Your task to perform on an android device: Search for logitech g910 on bestbuy, select the first entry, add it to the cart, then select checkout. Image 0: 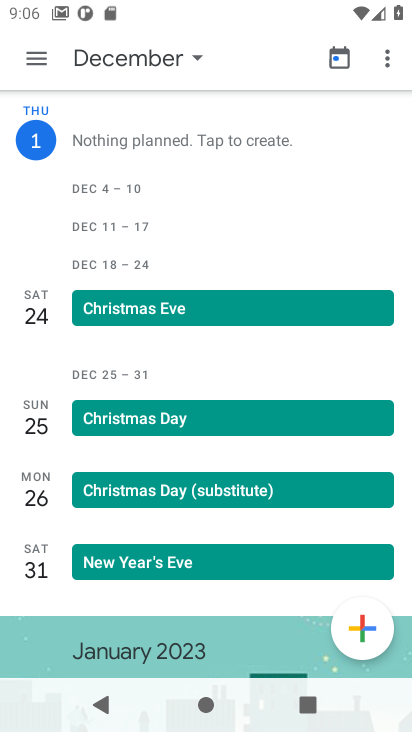
Step 0: press home button
Your task to perform on an android device: Search for logitech g910 on bestbuy, select the first entry, add it to the cart, then select checkout. Image 1: 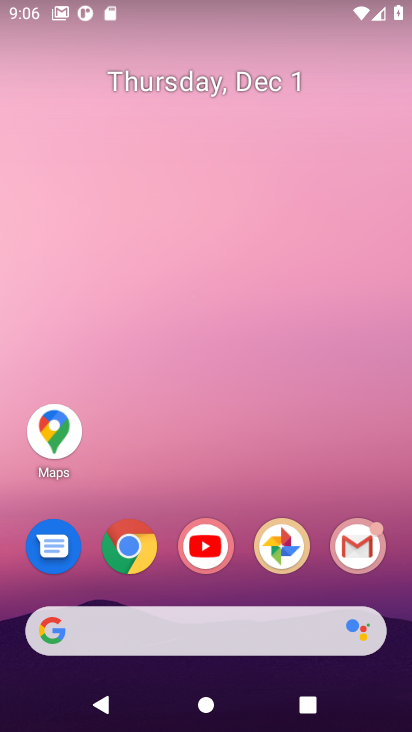
Step 1: click (129, 550)
Your task to perform on an android device: Search for logitech g910 on bestbuy, select the first entry, add it to the cart, then select checkout. Image 2: 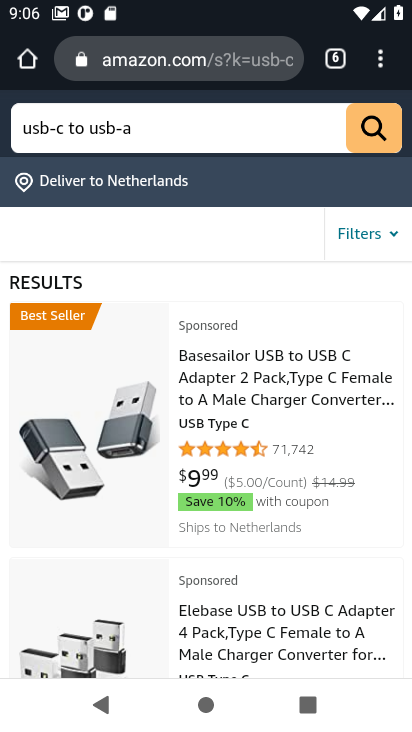
Step 2: click (148, 70)
Your task to perform on an android device: Search for logitech g910 on bestbuy, select the first entry, add it to the cart, then select checkout. Image 3: 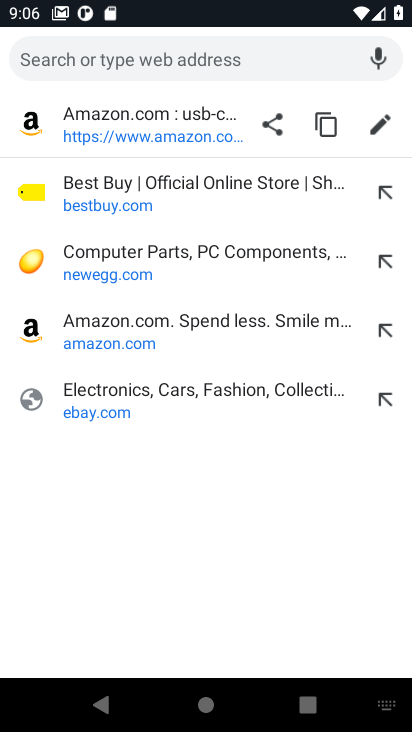
Step 3: click (90, 196)
Your task to perform on an android device: Search for logitech g910 on bestbuy, select the first entry, add it to the cart, then select checkout. Image 4: 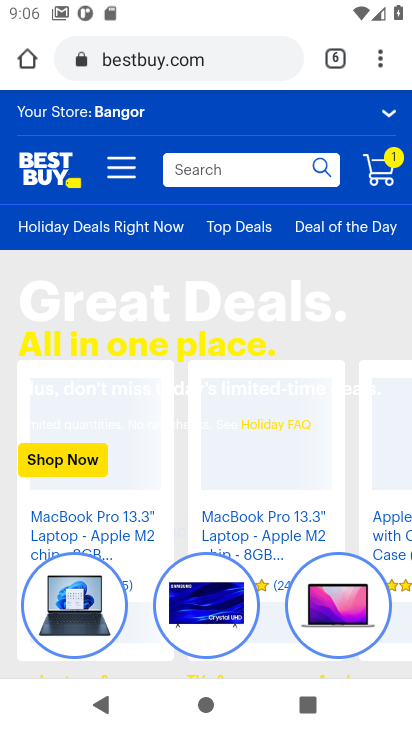
Step 4: click (187, 174)
Your task to perform on an android device: Search for logitech g910 on bestbuy, select the first entry, add it to the cart, then select checkout. Image 5: 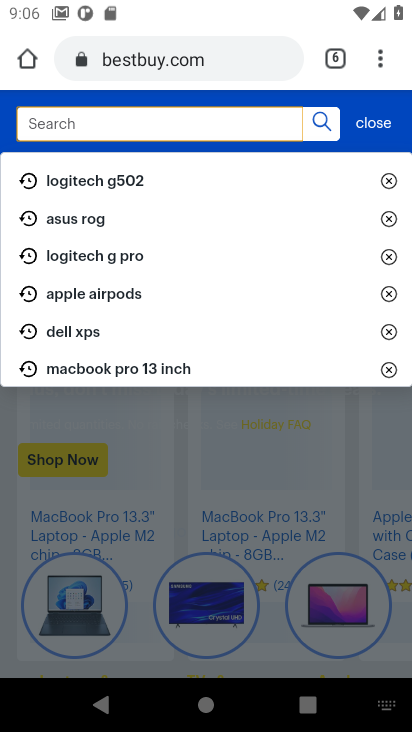
Step 5: type "logitech g910"
Your task to perform on an android device: Search for logitech g910 on bestbuy, select the first entry, add it to the cart, then select checkout. Image 6: 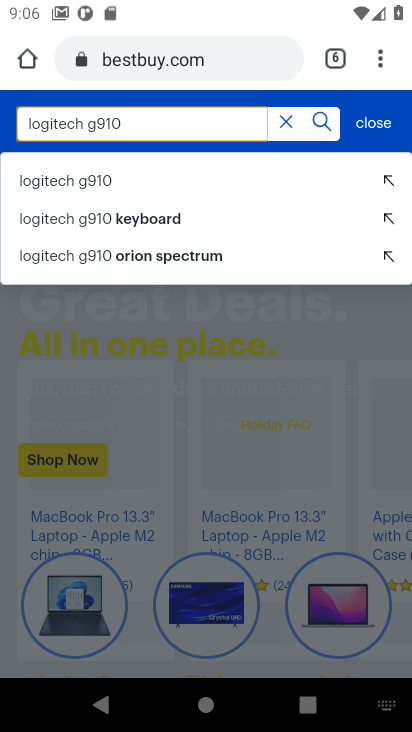
Step 6: click (93, 178)
Your task to perform on an android device: Search for logitech g910 on bestbuy, select the first entry, add it to the cart, then select checkout. Image 7: 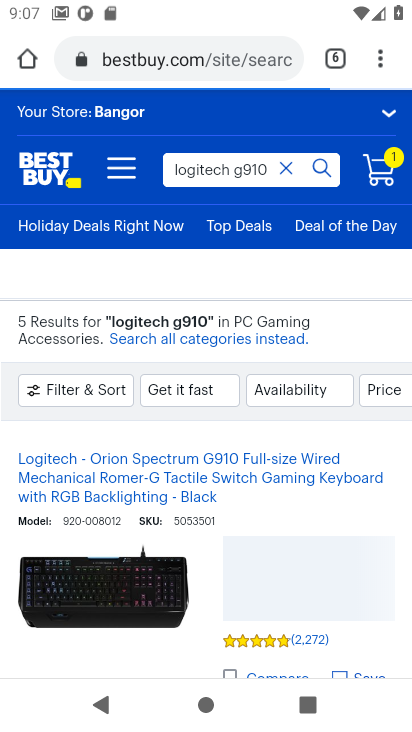
Step 7: task complete